Your task to perform on an android device: open the mobile data screen to see how much data has been used Image 0: 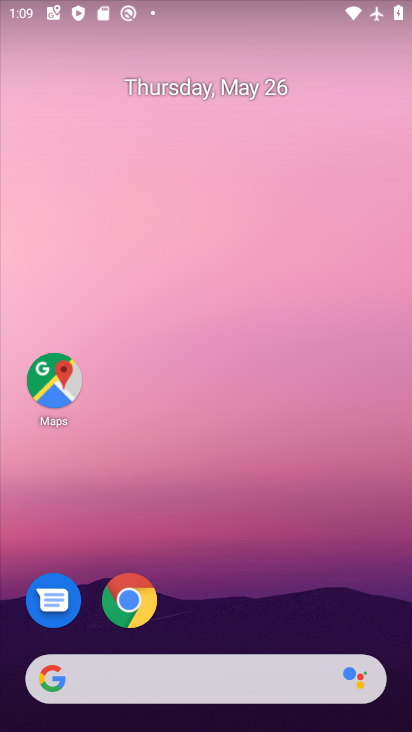
Step 0: drag from (368, 551) to (326, 73)
Your task to perform on an android device: open the mobile data screen to see how much data has been used Image 1: 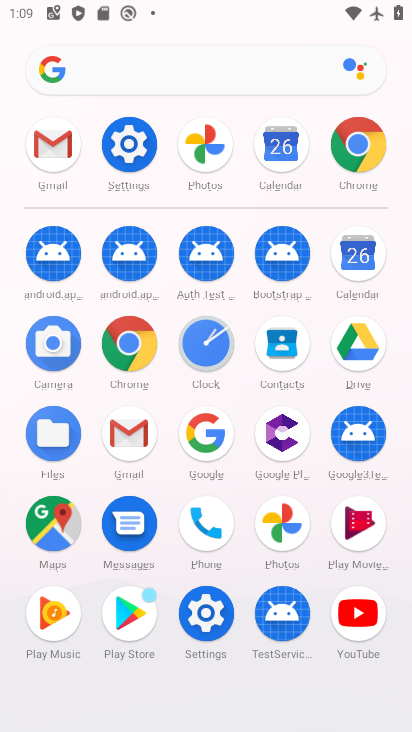
Step 1: click (140, 143)
Your task to perform on an android device: open the mobile data screen to see how much data has been used Image 2: 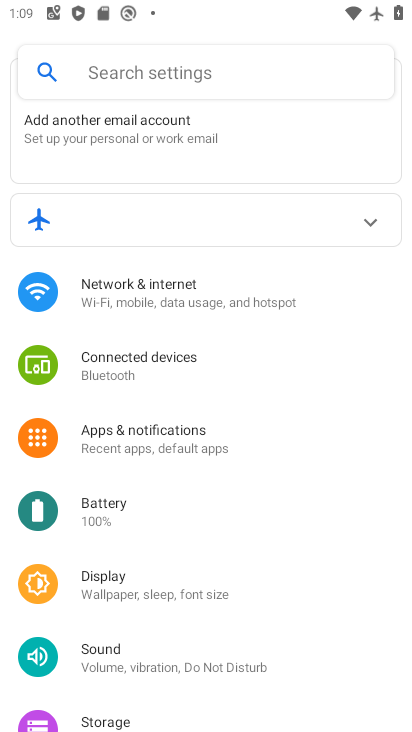
Step 2: click (137, 301)
Your task to perform on an android device: open the mobile data screen to see how much data has been used Image 3: 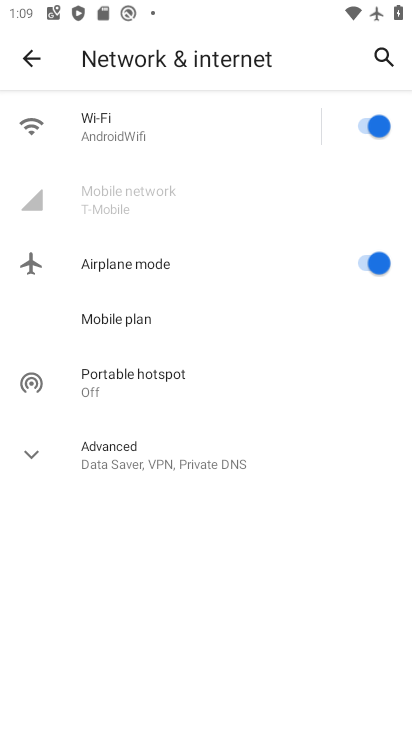
Step 3: click (167, 196)
Your task to perform on an android device: open the mobile data screen to see how much data has been used Image 4: 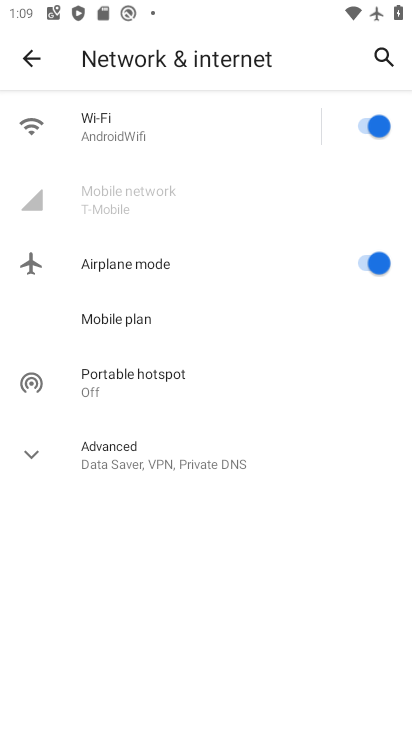
Step 4: click (166, 194)
Your task to perform on an android device: open the mobile data screen to see how much data has been used Image 5: 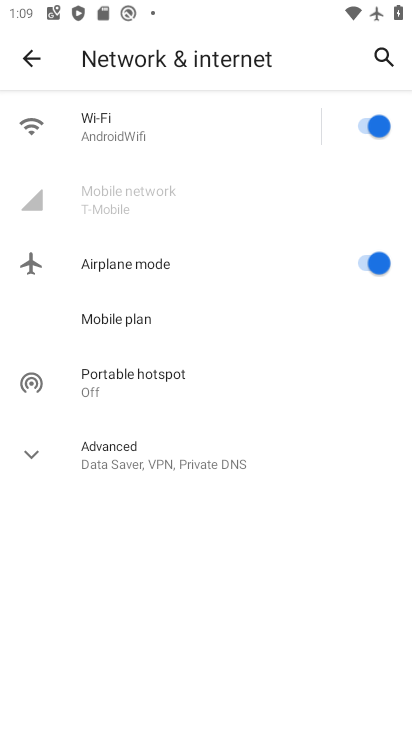
Step 5: click (166, 194)
Your task to perform on an android device: open the mobile data screen to see how much data has been used Image 6: 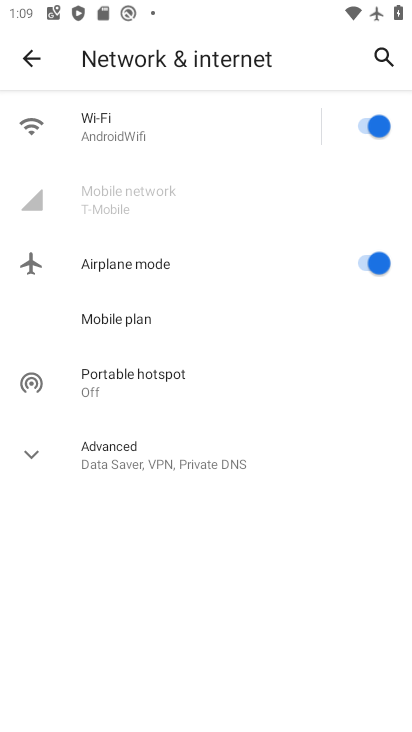
Step 6: click (166, 194)
Your task to perform on an android device: open the mobile data screen to see how much data has been used Image 7: 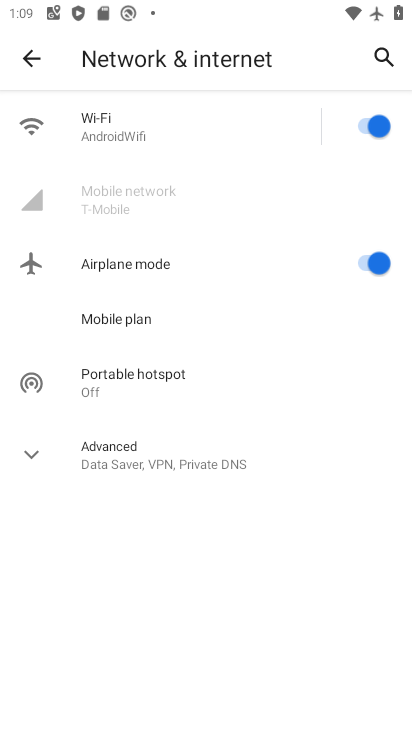
Step 7: click (166, 194)
Your task to perform on an android device: open the mobile data screen to see how much data has been used Image 8: 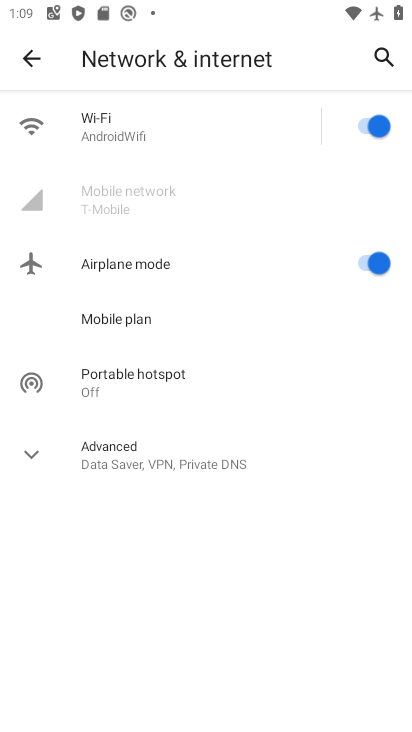
Step 8: click (166, 194)
Your task to perform on an android device: open the mobile data screen to see how much data has been used Image 9: 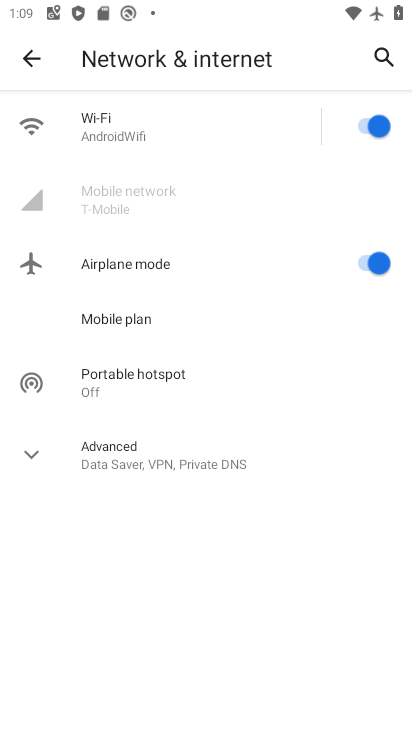
Step 9: task complete